Your task to perform on an android device: Open Amazon Image 0: 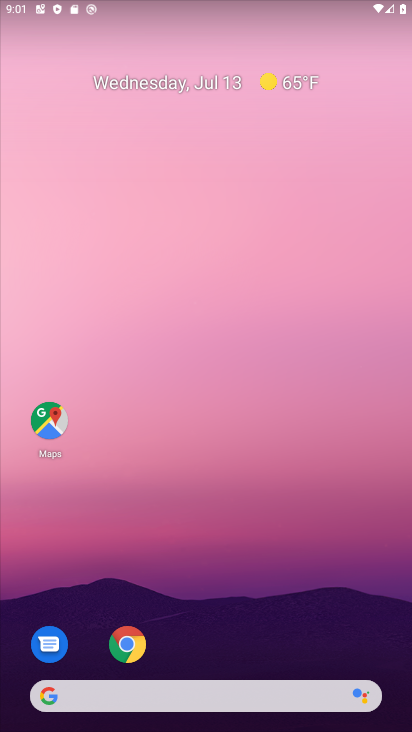
Step 0: drag from (230, 599) to (218, 17)
Your task to perform on an android device: Open Amazon Image 1: 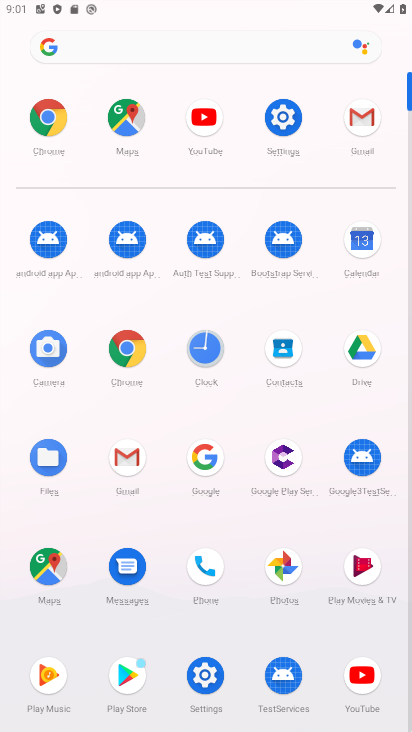
Step 1: click (37, 112)
Your task to perform on an android device: Open Amazon Image 2: 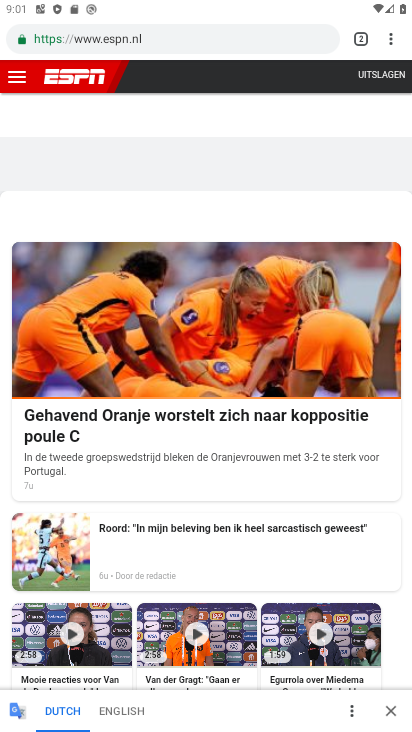
Step 2: click (181, 41)
Your task to perform on an android device: Open Amazon Image 3: 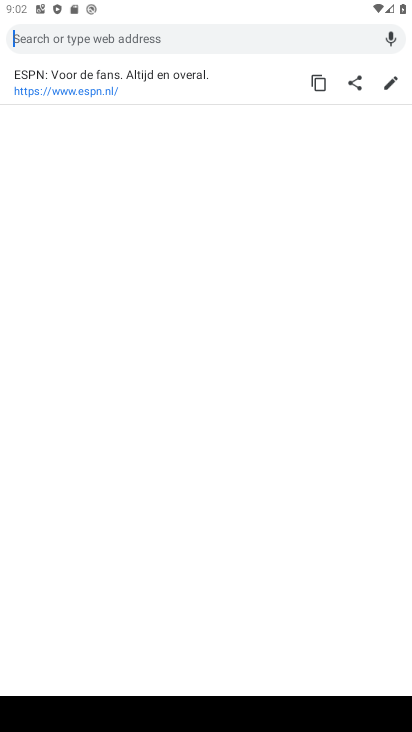
Step 3: type "Amazon"
Your task to perform on an android device: Open Amazon Image 4: 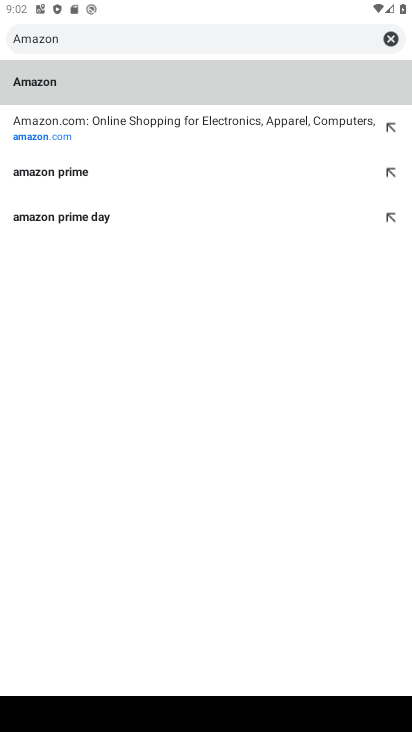
Step 4: click (29, 112)
Your task to perform on an android device: Open Amazon Image 5: 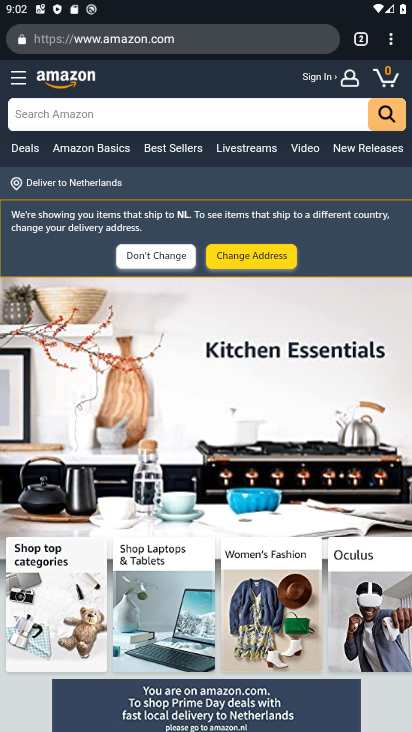
Step 5: task complete